Your task to perform on an android device: check out phone information Image 0: 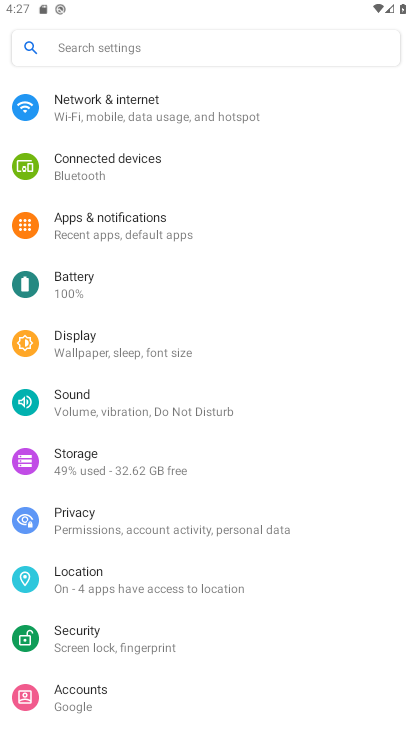
Step 0: press home button
Your task to perform on an android device: check out phone information Image 1: 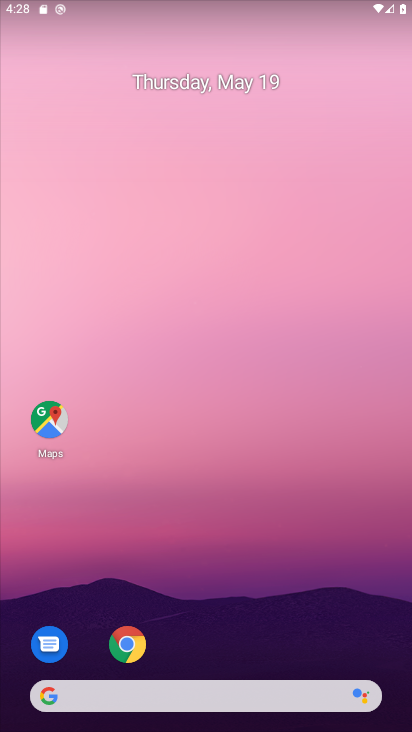
Step 1: drag from (208, 637) to (277, 121)
Your task to perform on an android device: check out phone information Image 2: 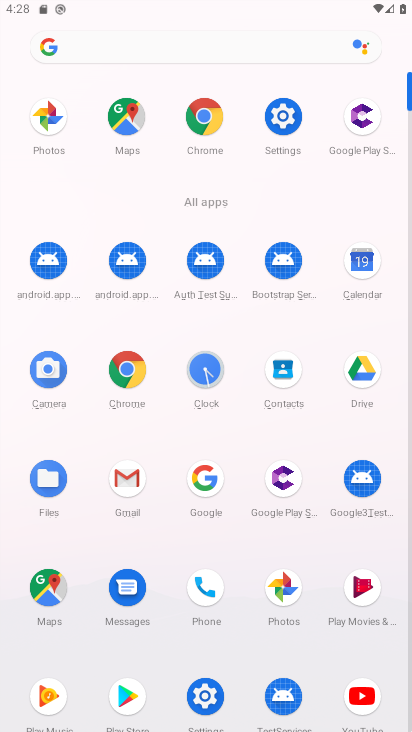
Step 2: click (210, 589)
Your task to perform on an android device: check out phone information Image 3: 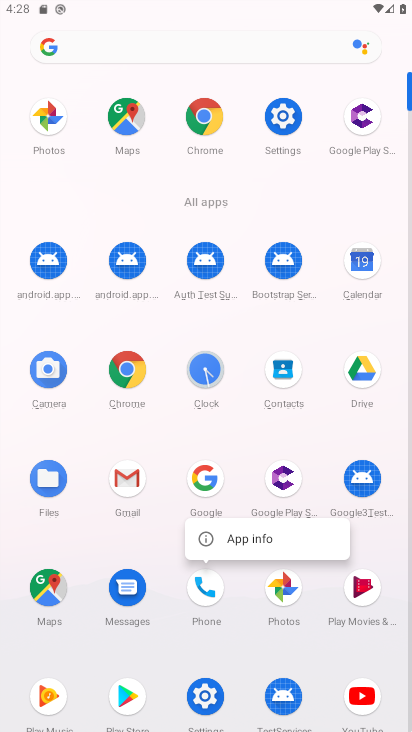
Step 3: click (219, 543)
Your task to perform on an android device: check out phone information Image 4: 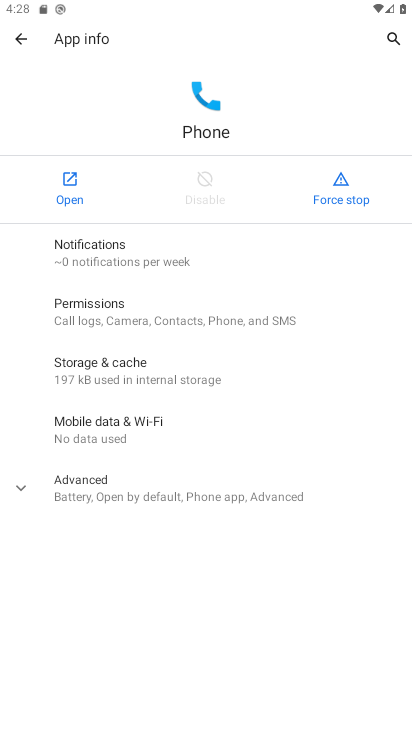
Step 4: task complete